Your task to perform on an android device: open device folders in google photos Image 0: 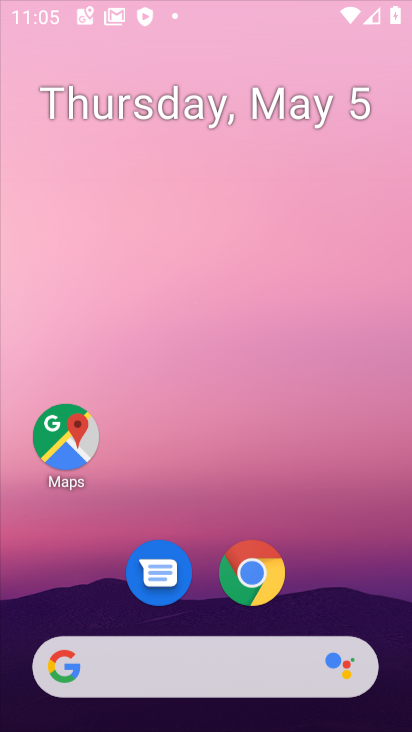
Step 0: click (347, 197)
Your task to perform on an android device: open device folders in google photos Image 1: 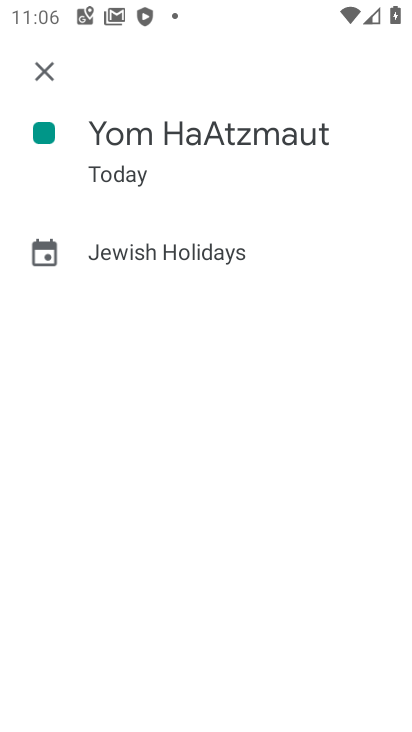
Step 1: press home button
Your task to perform on an android device: open device folders in google photos Image 2: 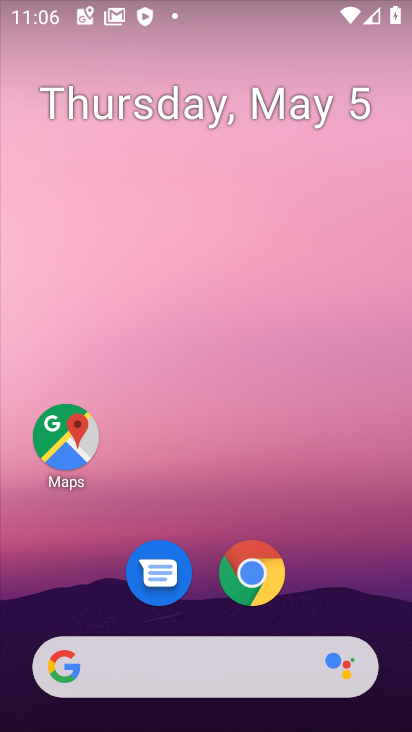
Step 2: drag from (319, 596) to (332, 184)
Your task to perform on an android device: open device folders in google photos Image 3: 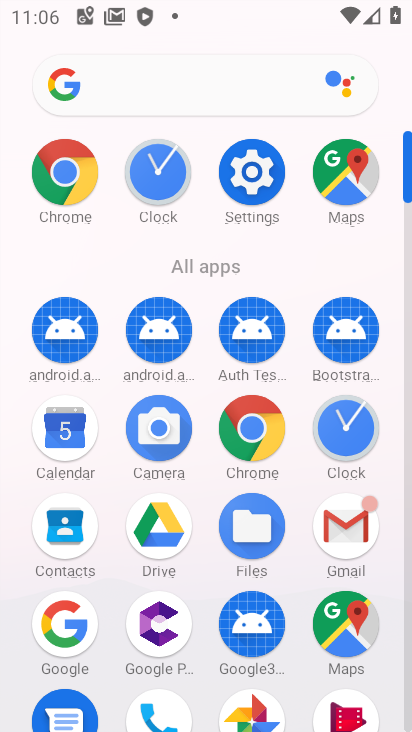
Step 3: drag from (188, 669) to (239, 377)
Your task to perform on an android device: open device folders in google photos Image 4: 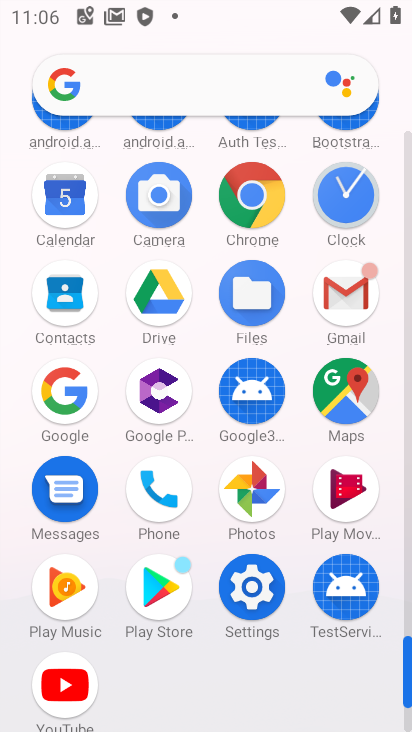
Step 4: click (262, 483)
Your task to perform on an android device: open device folders in google photos Image 5: 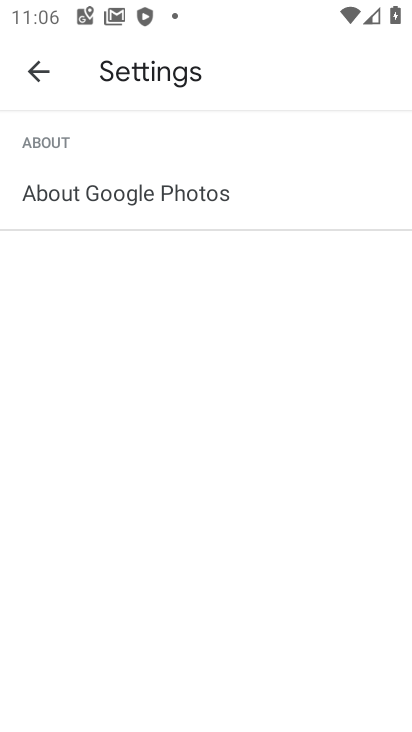
Step 5: click (41, 62)
Your task to perform on an android device: open device folders in google photos Image 6: 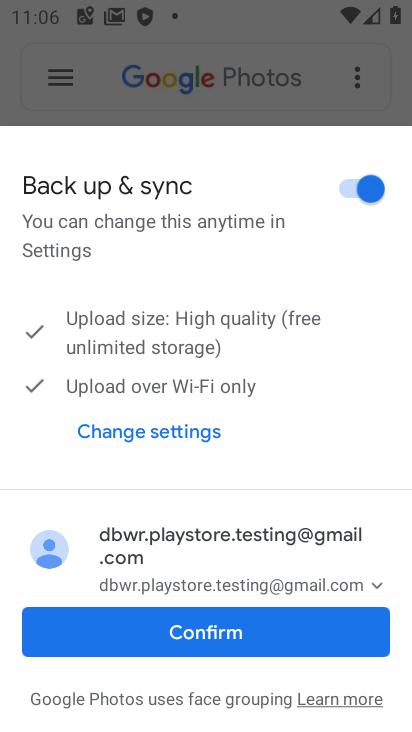
Step 6: click (189, 633)
Your task to perform on an android device: open device folders in google photos Image 7: 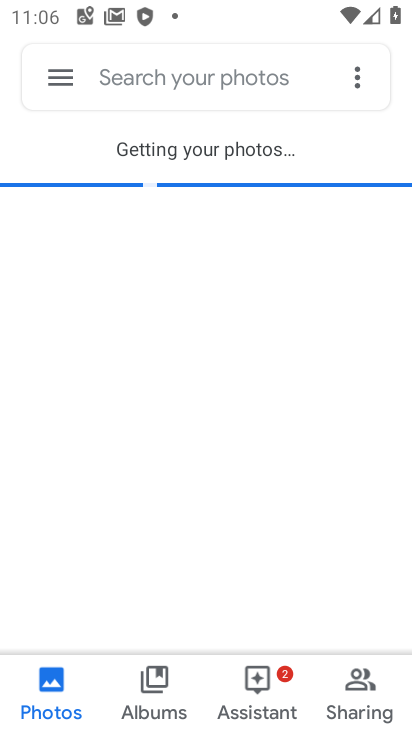
Step 7: click (161, 673)
Your task to perform on an android device: open device folders in google photos Image 8: 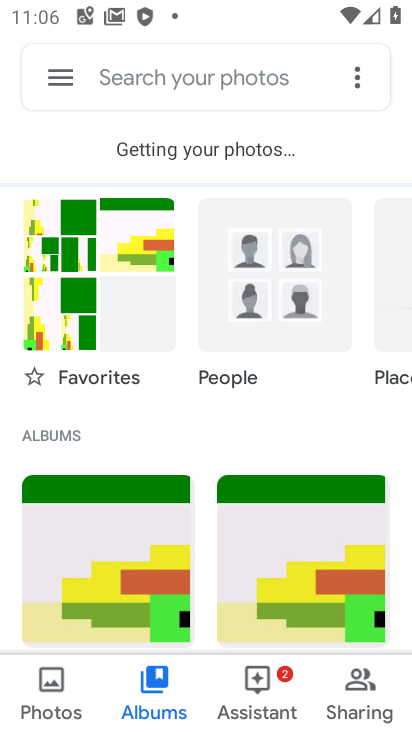
Step 8: click (58, 252)
Your task to perform on an android device: open device folders in google photos Image 9: 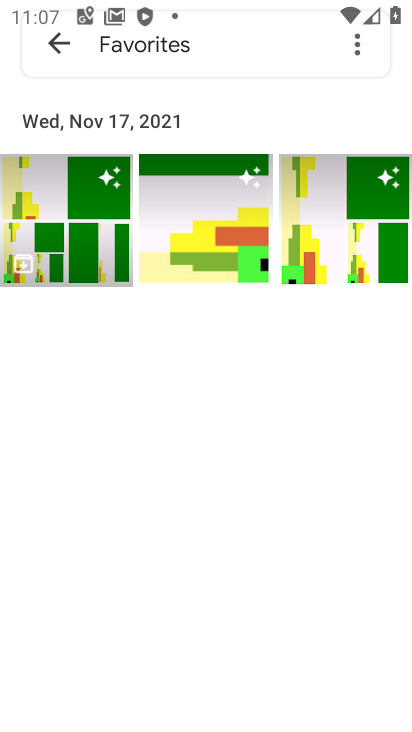
Step 9: click (76, 216)
Your task to perform on an android device: open device folders in google photos Image 10: 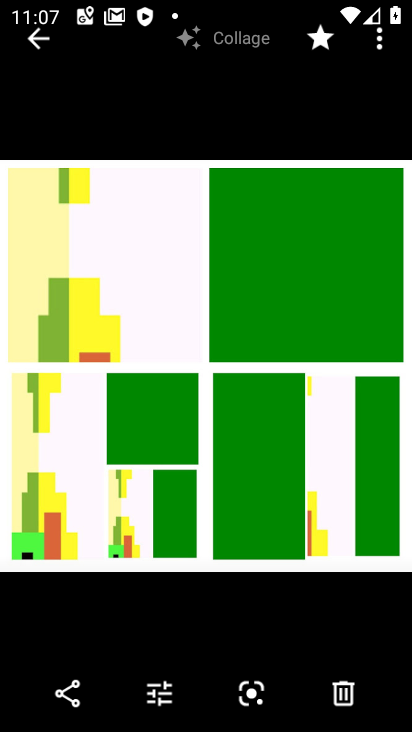
Step 10: click (21, 45)
Your task to perform on an android device: open device folders in google photos Image 11: 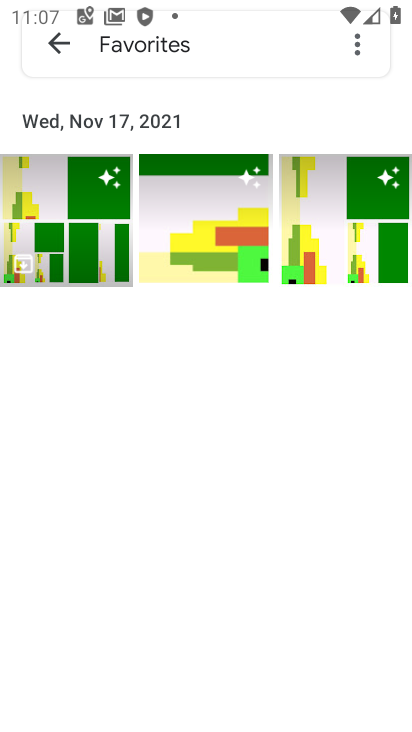
Step 11: click (30, 44)
Your task to perform on an android device: open device folders in google photos Image 12: 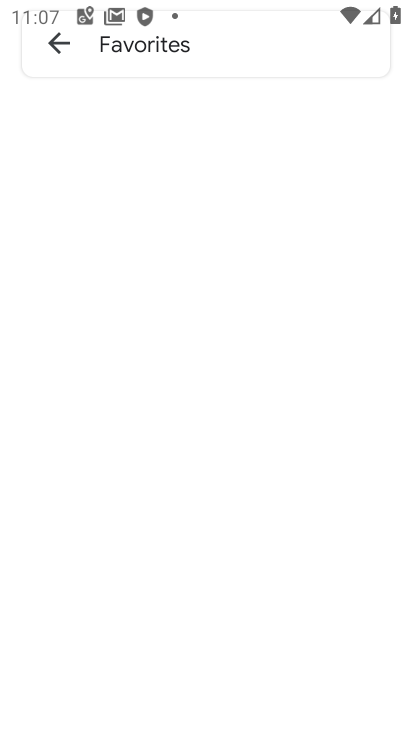
Step 12: click (45, 193)
Your task to perform on an android device: open device folders in google photos Image 13: 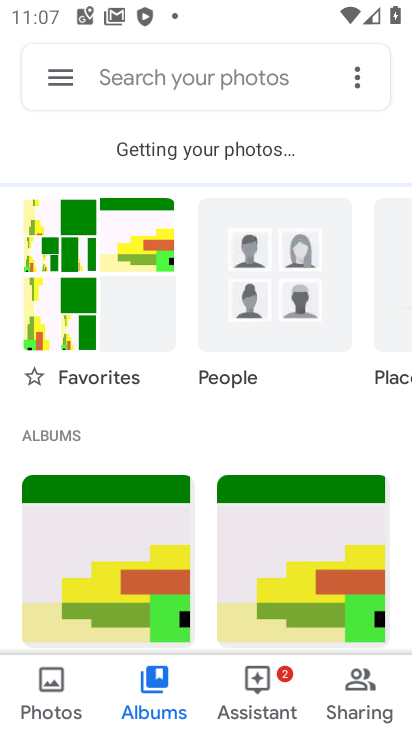
Step 13: click (78, 239)
Your task to perform on an android device: open device folders in google photos Image 14: 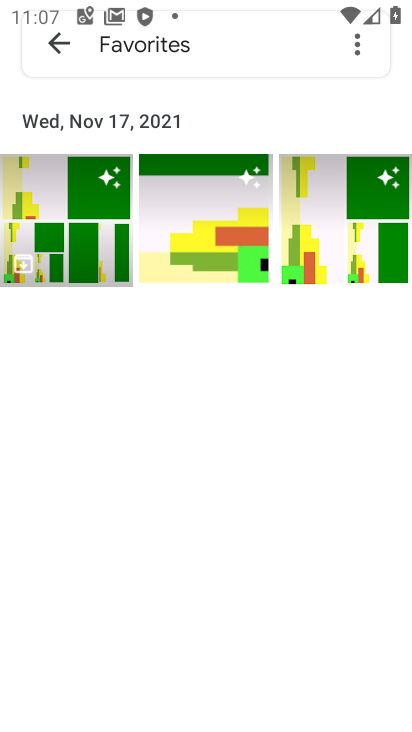
Step 14: task complete